Your task to perform on an android device: clear history in the chrome app Image 0: 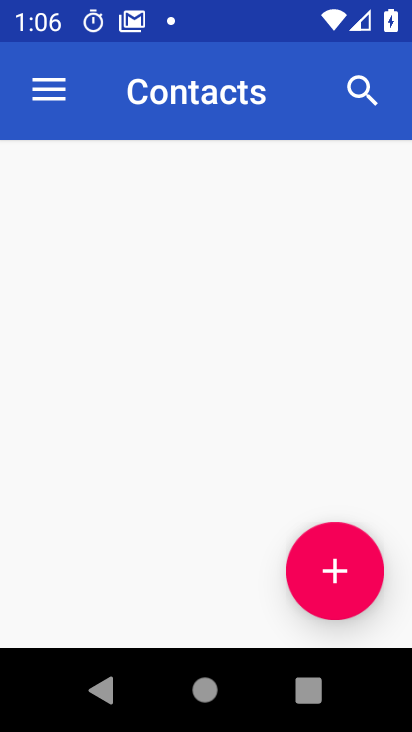
Step 0: press home button
Your task to perform on an android device: clear history in the chrome app Image 1: 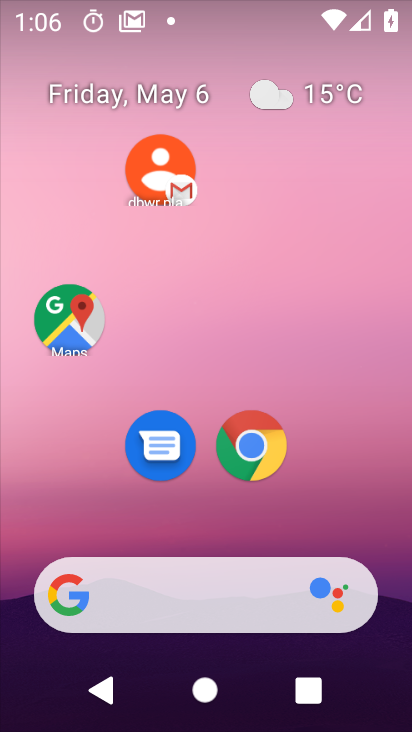
Step 1: drag from (292, 309) to (182, 69)
Your task to perform on an android device: clear history in the chrome app Image 2: 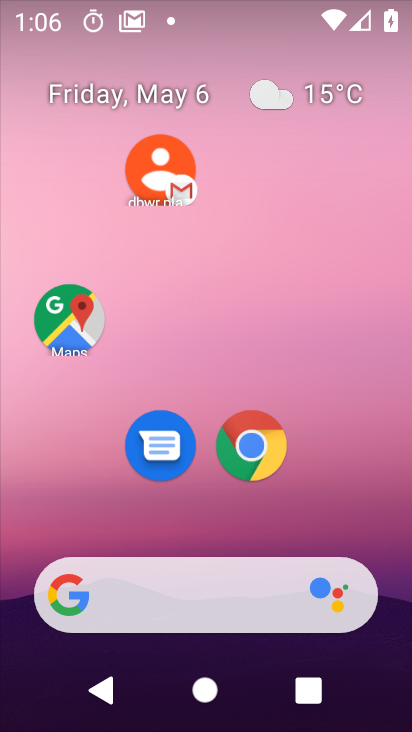
Step 2: drag from (353, 540) to (308, 260)
Your task to perform on an android device: clear history in the chrome app Image 3: 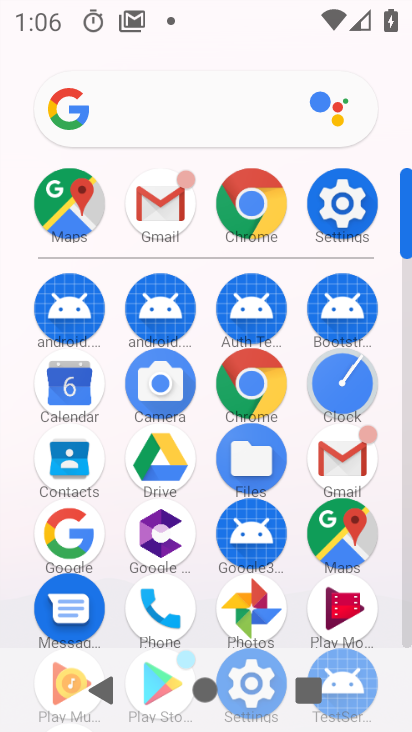
Step 3: click (243, 221)
Your task to perform on an android device: clear history in the chrome app Image 4: 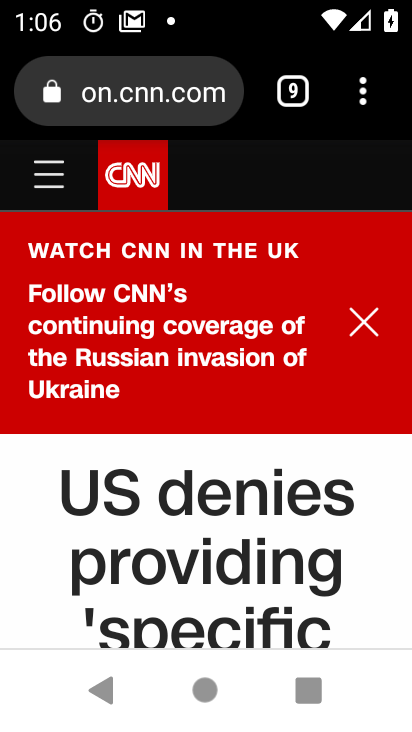
Step 4: click (365, 100)
Your task to perform on an android device: clear history in the chrome app Image 5: 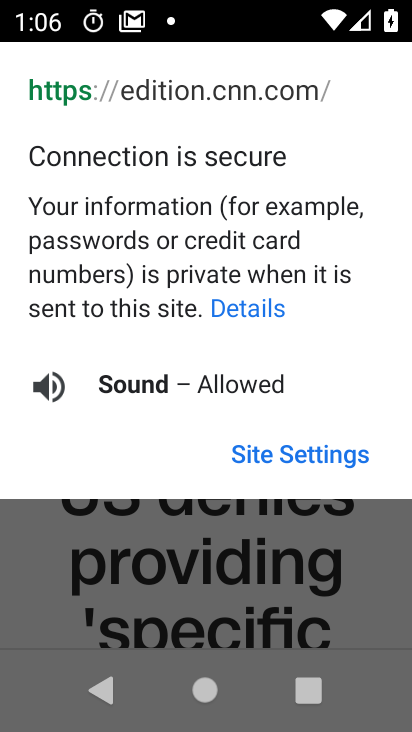
Step 5: click (223, 506)
Your task to perform on an android device: clear history in the chrome app Image 6: 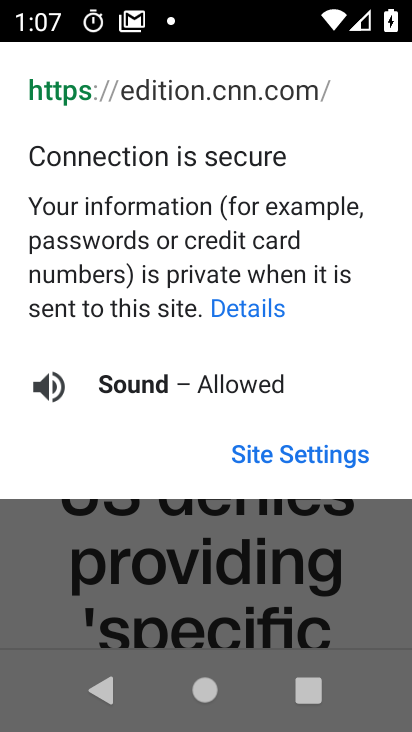
Step 6: click (302, 533)
Your task to perform on an android device: clear history in the chrome app Image 7: 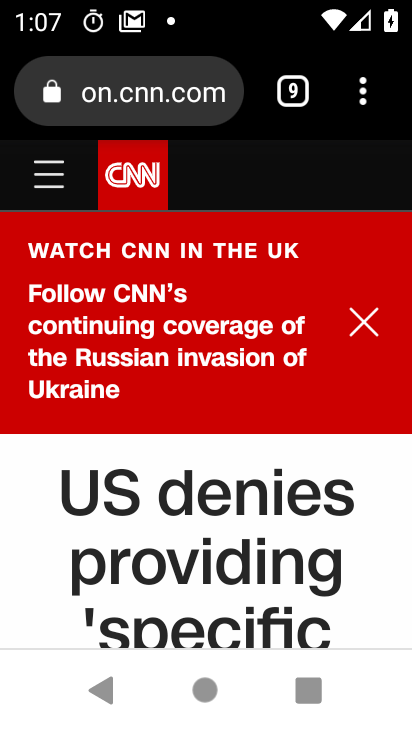
Step 7: drag from (362, 88) to (186, 306)
Your task to perform on an android device: clear history in the chrome app Image 8: 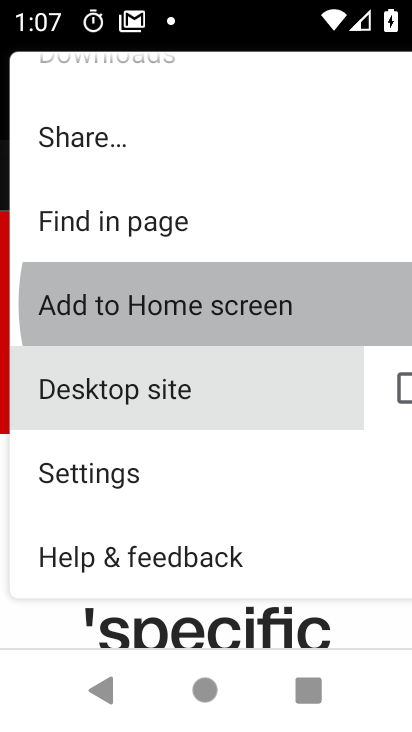
Step 8: click (186, 296)
Your task to perform on an android device: clear history in the chrome app Image 9: 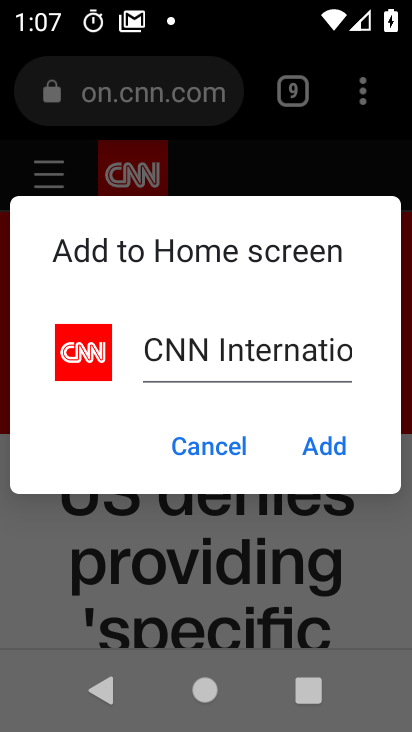
Step 9: drag from (187, 263) to (206, 440)
Your task to perform on an android device: clear history in the chrome app Image 10: 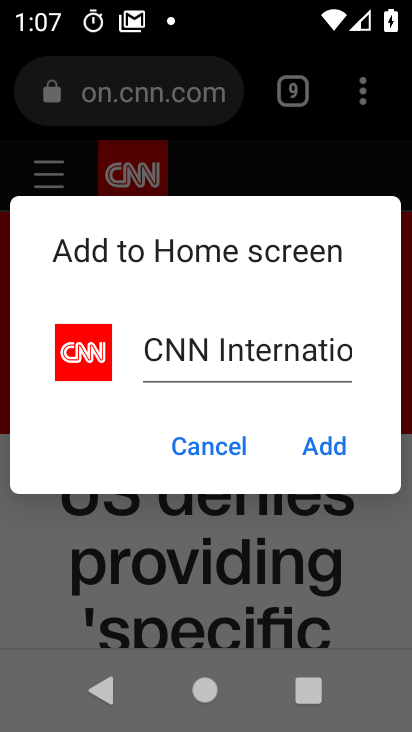
Step 10: click (206, 440)
Your task to perform on an android device: clear history in the chrome app Image 11: 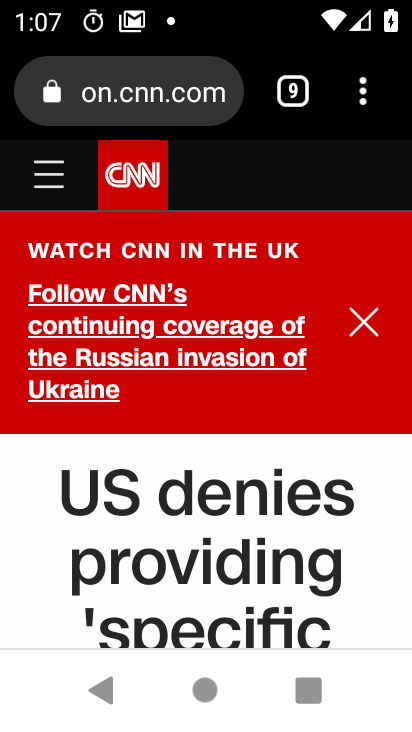
Step 11: click (357, 89)
Your task to perform on an android device: clear history in the chrome app Image 12: 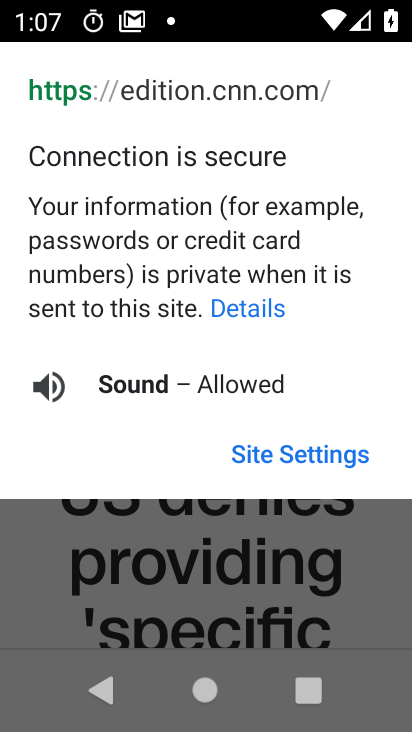
Step 12: click (245, 554)
Your task to perform on an android device: clear history in the chrome app Image 13: 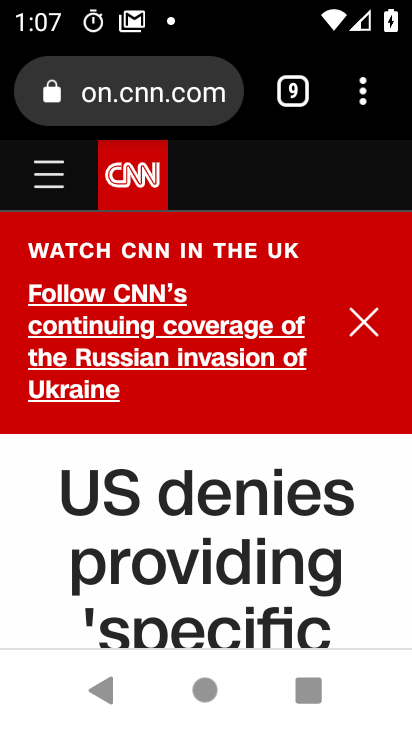
Step 13: drag from (361, 87) to (70, 443)
Your task to perform on an android device: clear history in the chrome app Image 14: 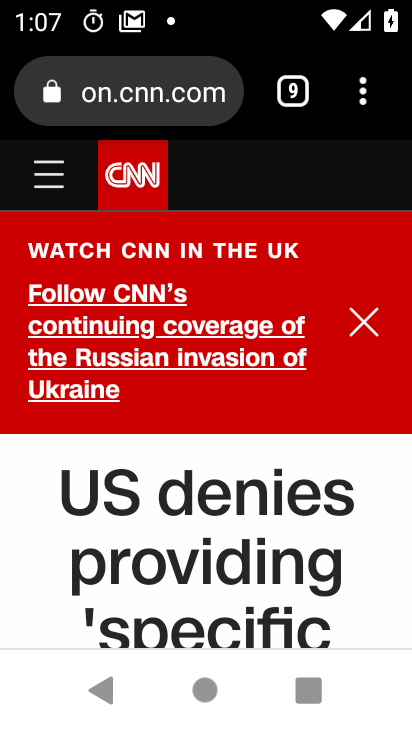
Step 14: click (70, 443)
Your task to perform on an android device: clear history in the chrome app Image 15: 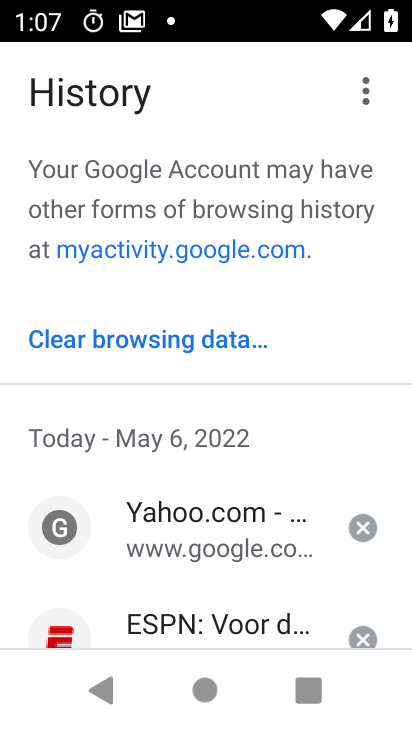
Step 15: click (356, 523)
Your task to perform on an android device: clear history in the chrome app Image 16: 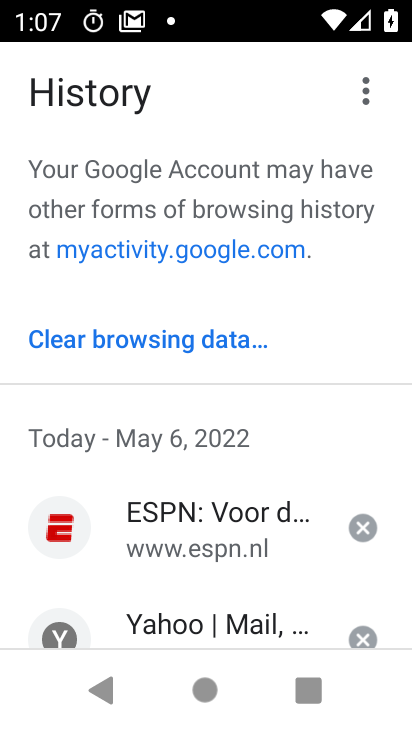
Step 16: task complete